Your task to perform on an android device: change alarm snooze length Image 0: 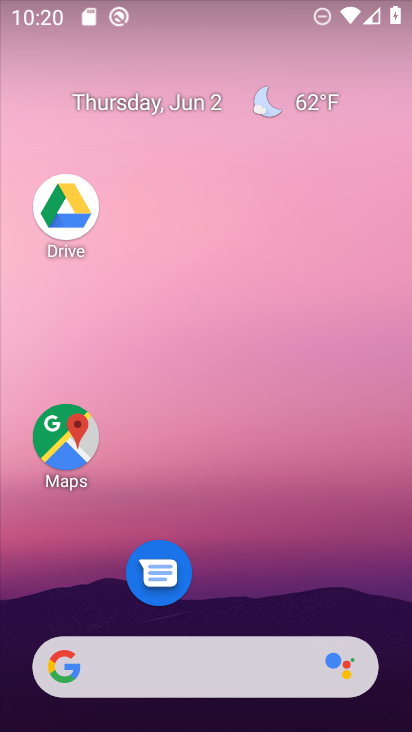
Step 0: drag from (231, 647) to (177, 1)
Your task to perform on an android device: change alarm snooze length Image 1: 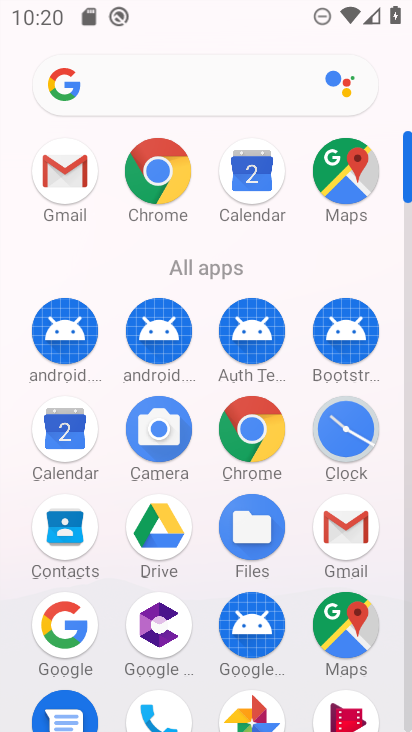
Step 1: click (357, 437)
Your task to perform on an android device: change alarm snooze length Image 2: 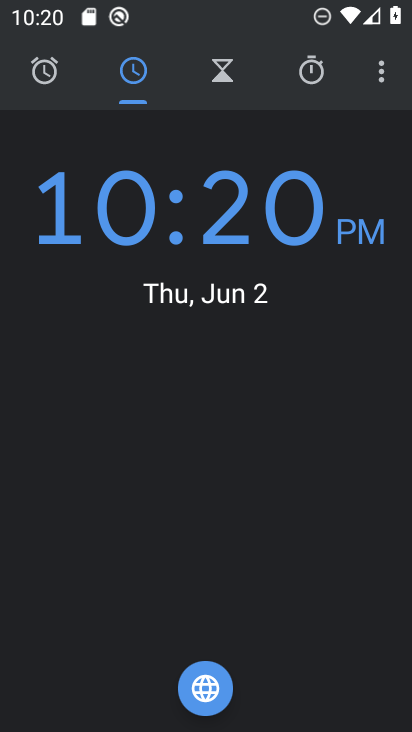
Step 2: click (388, 69)
Your task to perform on an android device: change alarm snooze length Image 3: 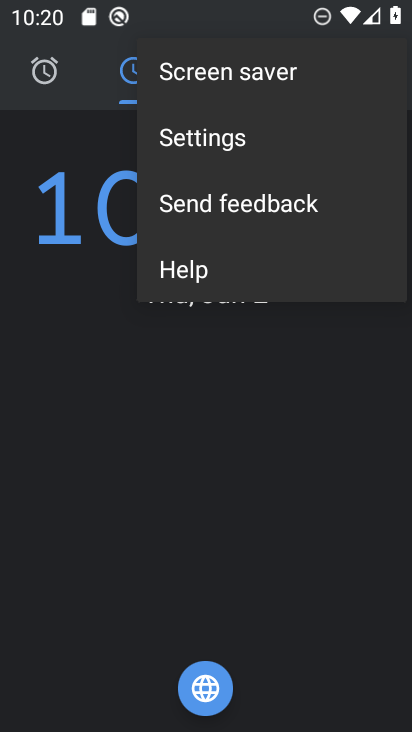
Step 3: click (259, 148)
Your task to perform on an android device: change alarm snooze length Image 4: 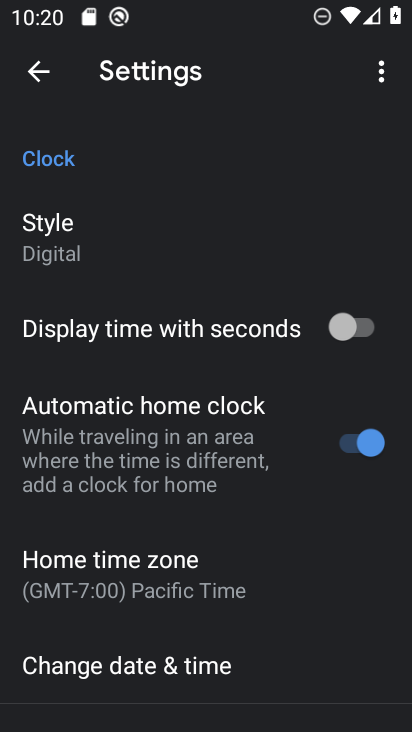
Step 4: drag from (195, 566) to (180, 179)
Your task to perform on an android device: change alarm snooze length Image 5: 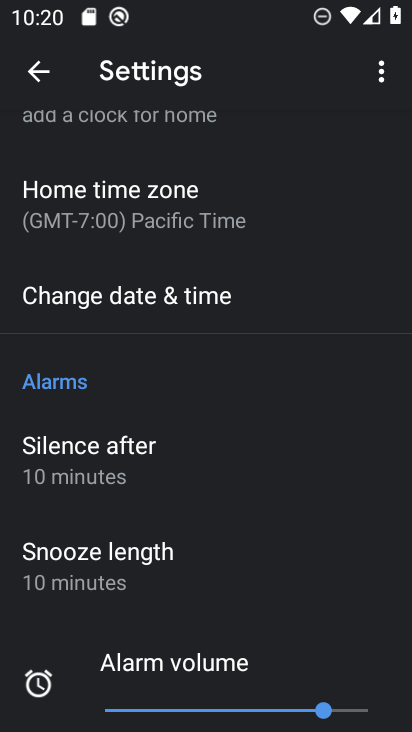
Step 5: click (158, 552)
Your task to perform on an android device: change alarm snooze length Image 6: 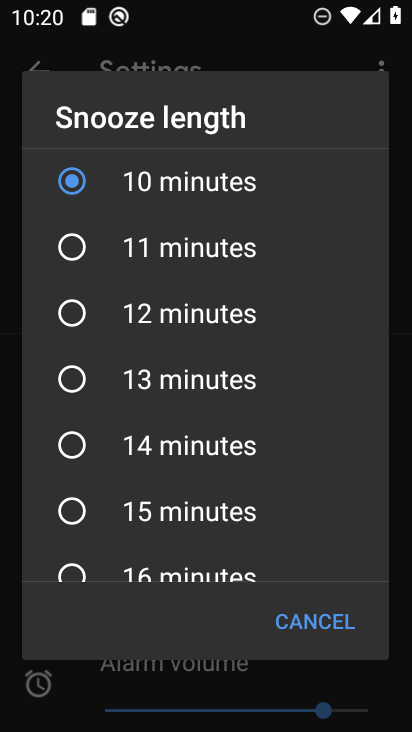
Step 6: click (147, 264)
Your task to perform on an android device: change alarm snooze length Image 7: 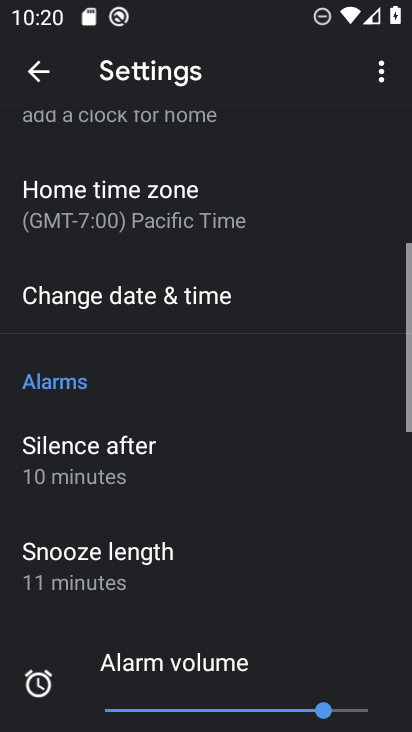
Step 7: task complete